Your task to perform on an android device: Go to location settings Image 0: 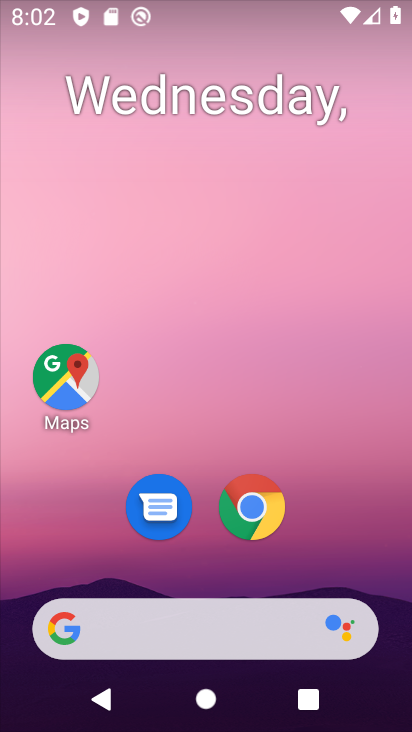
Step 0: drag from (206, 474) to (306, 15)
Your task to perform on an android device: Go to location settings Image 1: 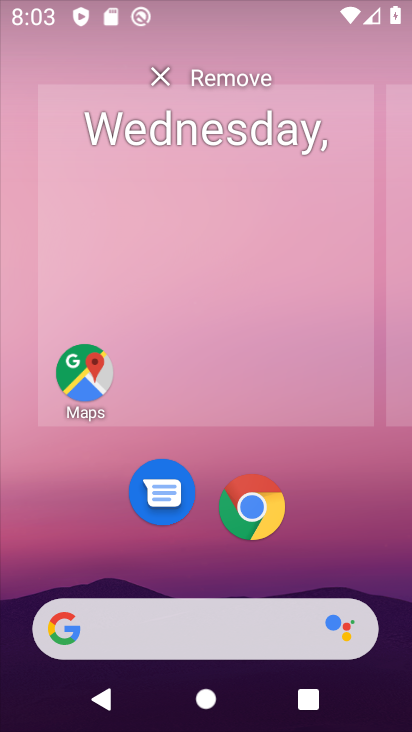
Step 1: drag from (205, 588) to (229, 5)
Your task to perform on an android device: Go to location settings Image 2: 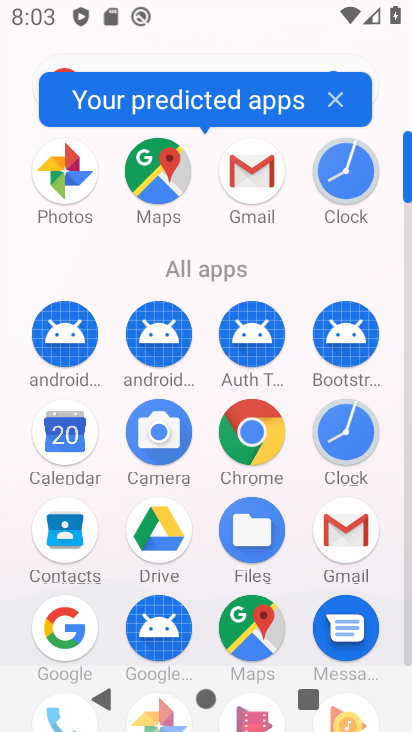
Step 2: drag from (198, 593) to (216, 169)
Your task to perform on an android device: Go to location settings Image 3: 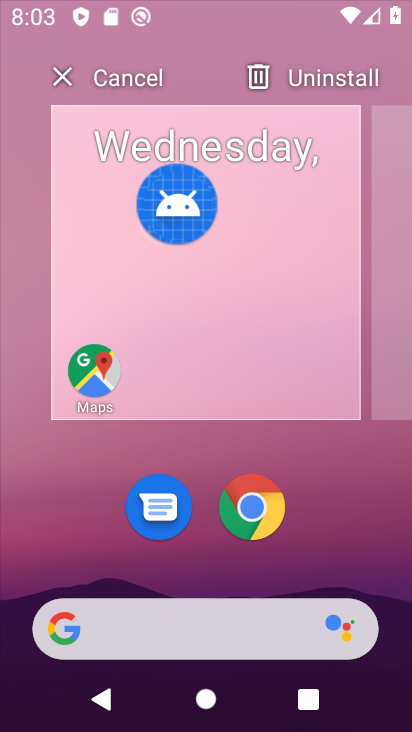
Step 3: drag from (214, 570) to (228, 108)
Your task to perform on an android device: Go to location settings Image 4: 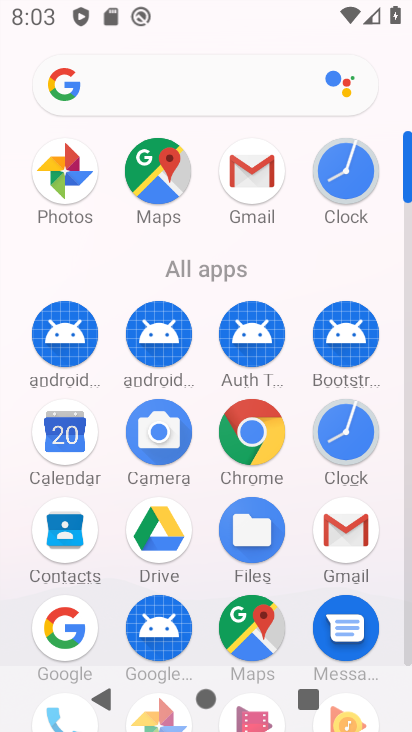
Step 4: drag from (202, 560) to (192, 215)
Your task to perform on an android device: Go to location settings Image 5: 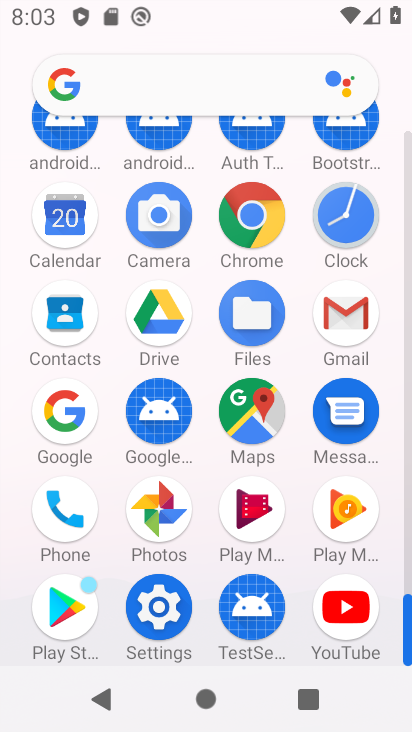
Step 5: click (170, 605)
Your task to perform on an android device: Go to location settings Image 6: 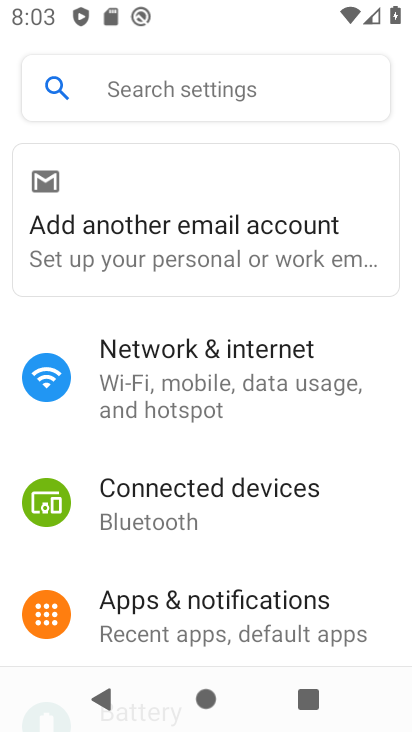
Step 6: drag from (261, 543) to (236, 218)
Your task to perform on an android device: Go to location settings Image 7: 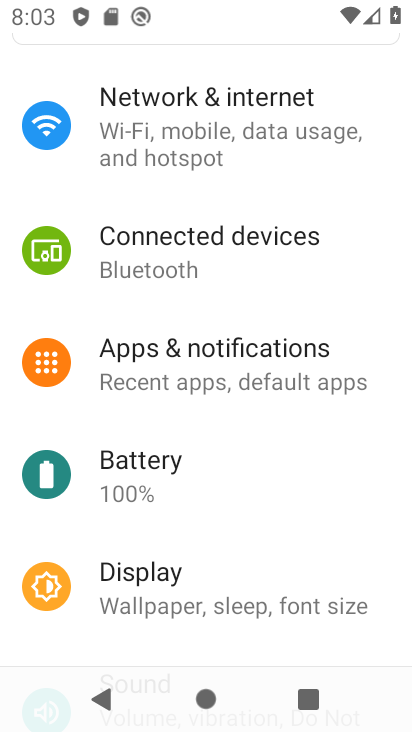
Step 7: drag from (214, 555) to (250, 125)
Your task to perform on an android device: Go to location settings Image 8: 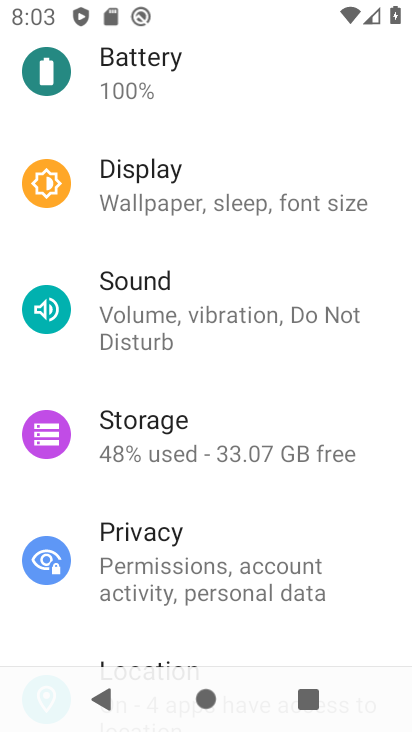
Step 8: drag from (206, 571) to (180, 94)
Your task to perform on an android device: Go to location settings Image 9: 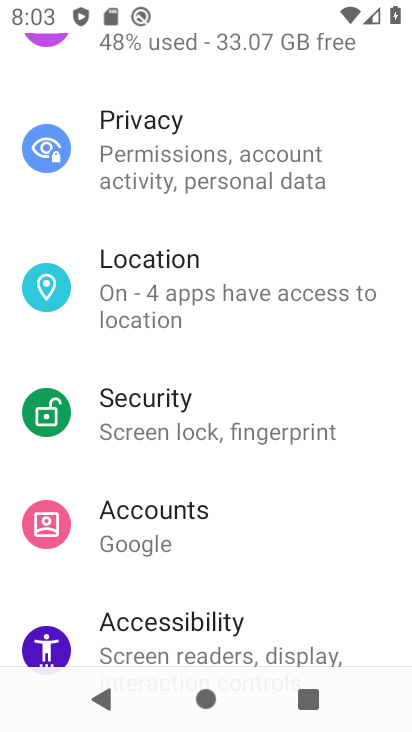
Step 9: click (151, 266)
Your task to perform on an android device: Go to location settings Image 10: 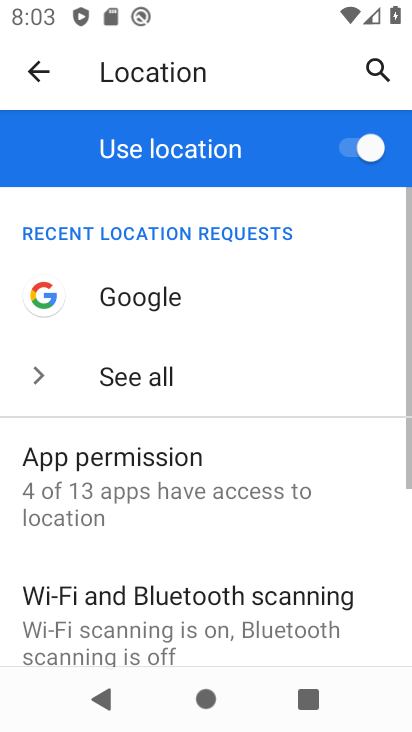
Step 10: drag from (191, 535) to (182, 151)
Your task to perform on an android device: Go to location settings Image 11: 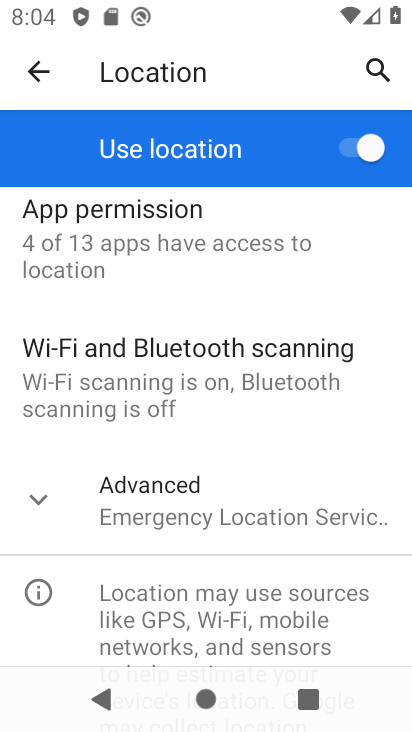
Step 11: click (222, 524)
Your task to perform on an android device: Go to location settings Image 12: 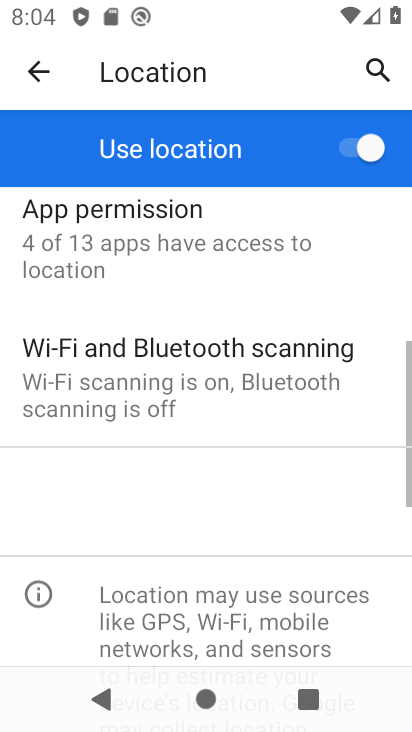
Step 12: task complete